Your task to perform on an android device: turn notification dots on Image 0: 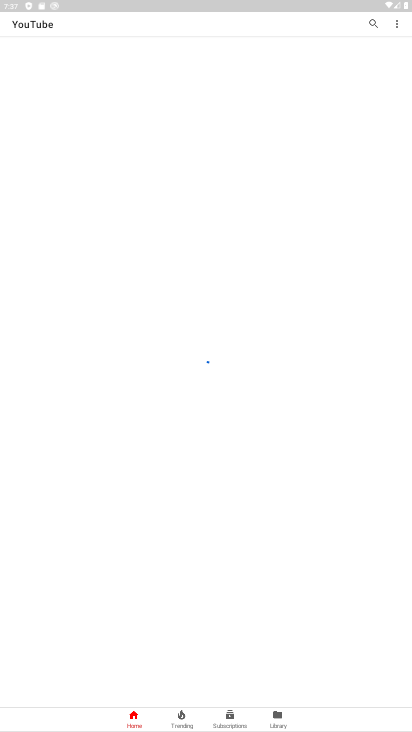
Step 0: drag from (311, 625) to (291, 515)
Your task to perform on an android device: turn notification dots on Image 1: 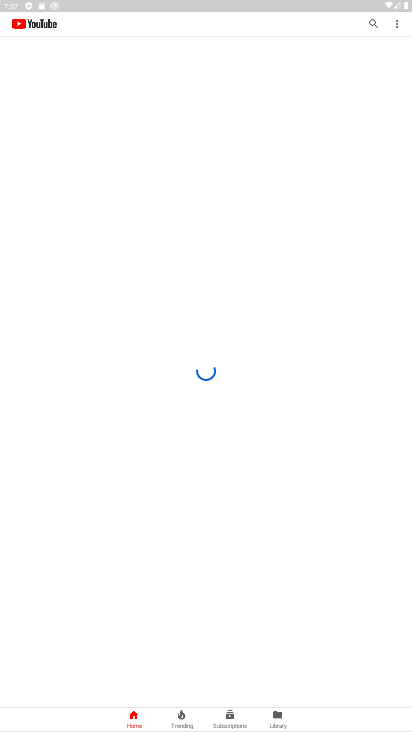
Step 1: press home button
Your task to perform on an android device: turn notification dots on Image 2: 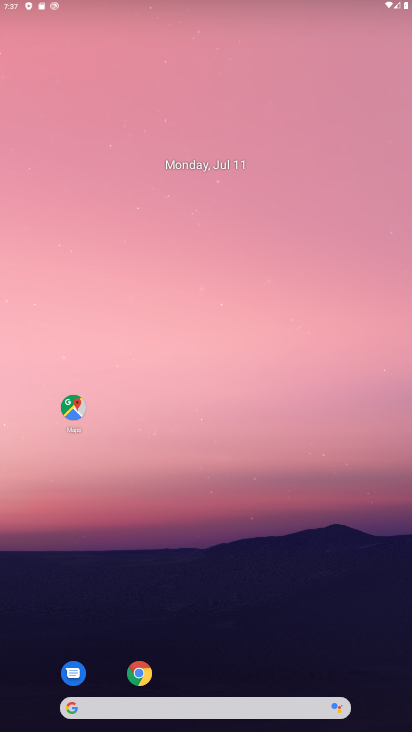
Step 2: drag from (310, 635) to (235, 137)
Your task to perform on an android device: turn notification dots on Image 3: 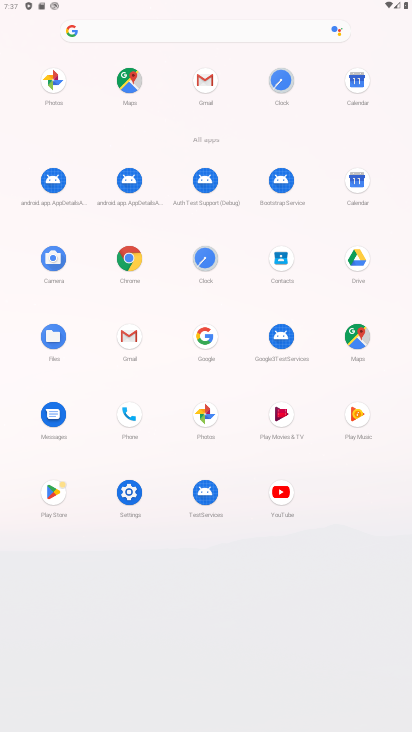
Step 3: click (133, 490)
Your task to perform on an android device: turn notification dots on Image 4: 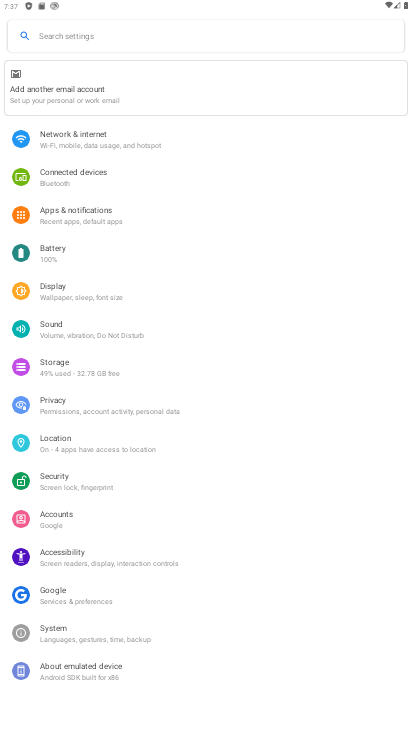
Step 4: click (82, 219)
Your task to perform on an android device: turn notification dots on Image 5: 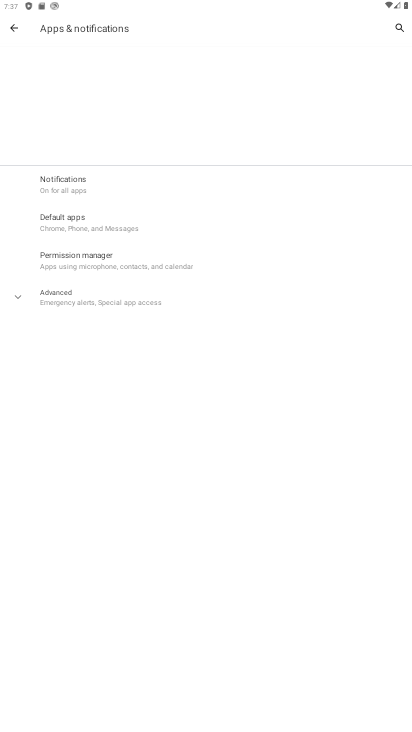
Step 5: click (77, 183)
Your task to perform on an android device: turn notification dots on Image 6: 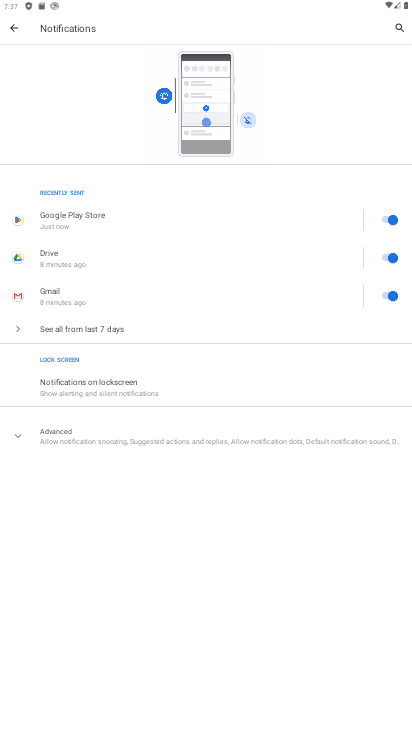
Step 6: click (84, 441)
Your task to perform on an android device: turn notification dots on Image 7: 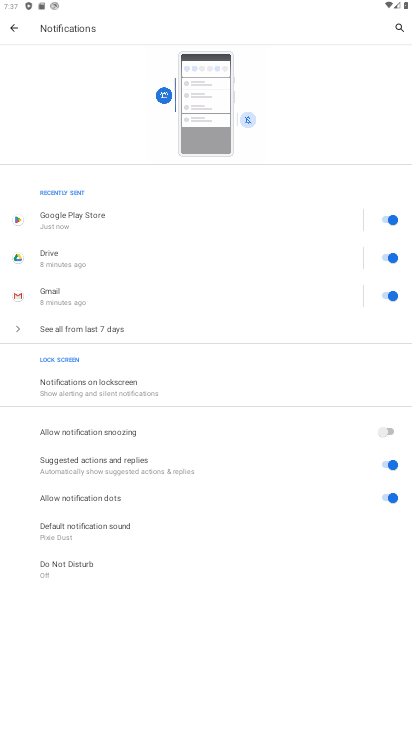
Step 7: task complete